Your task to perform on an android device: open app "Truecaller" Image 0: 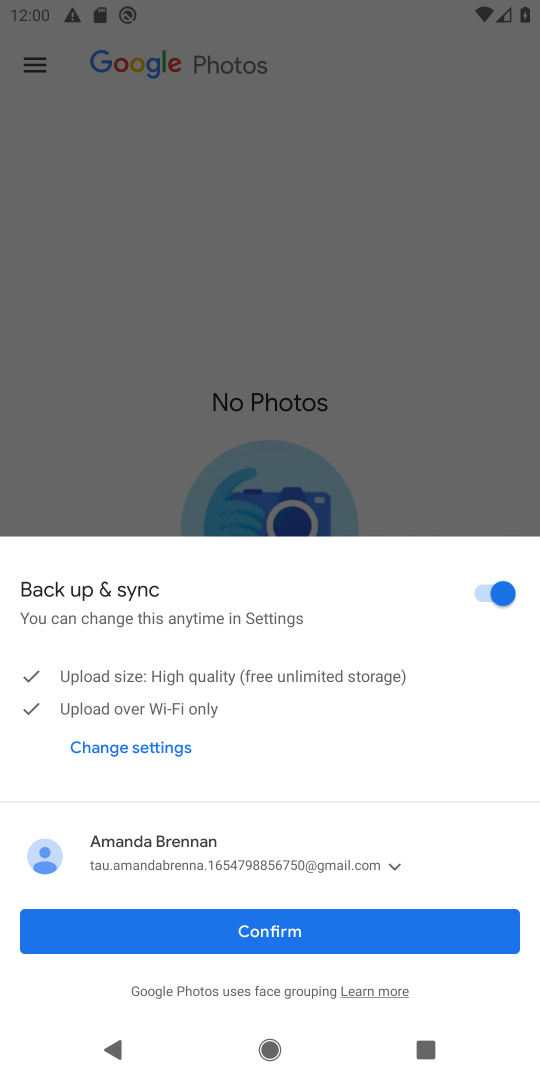
Step 0: press home button
Your task to perform on an android device: open app "Truecaller" Image 1: 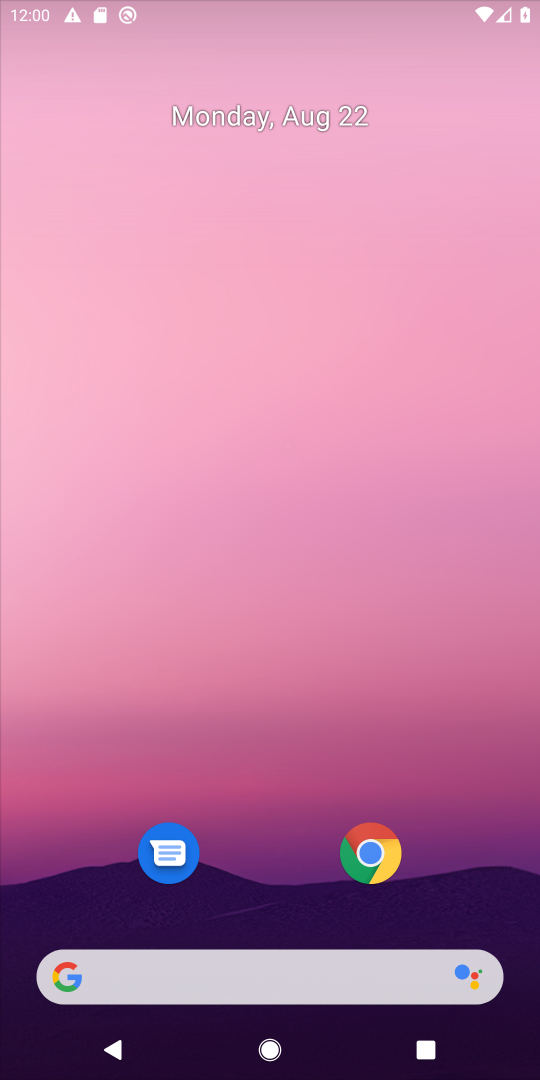
Step 1: drag from (256, 889) to (357, 163)
Your task to perform on an android device: open app "Truecaller" Image 2: 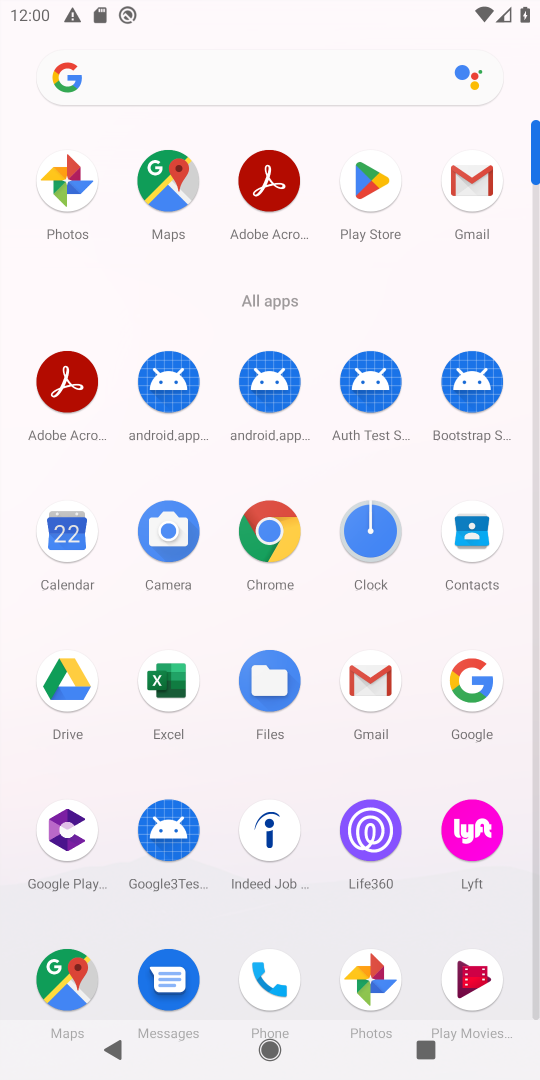
Step 2: click (364, 178)
Your task to perform on an android device: open app "Truecaller" Image 3: 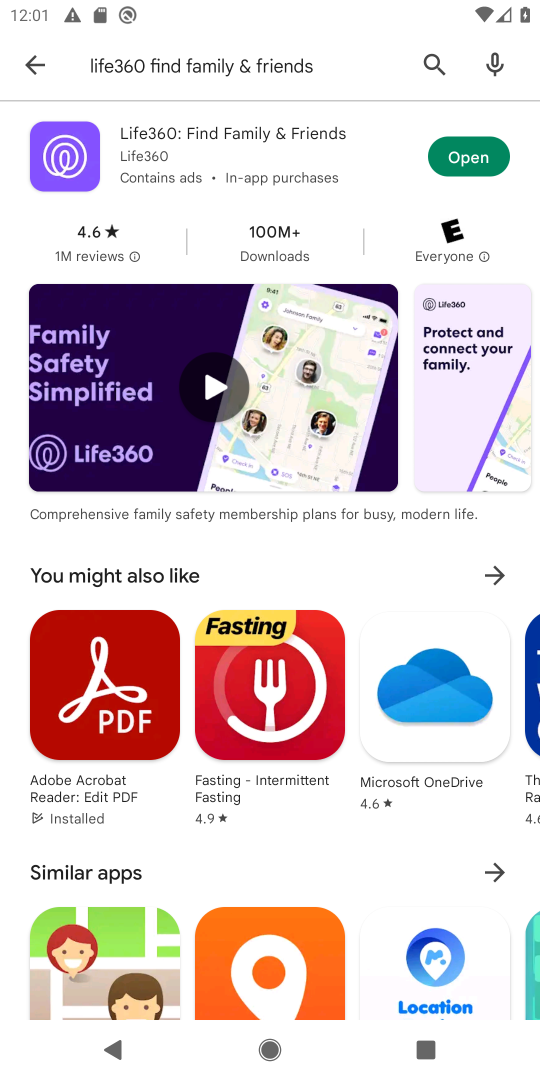
Step 3: click (50, 52)
Your task to perform on an android device: open app "Truecaller" Image 4: 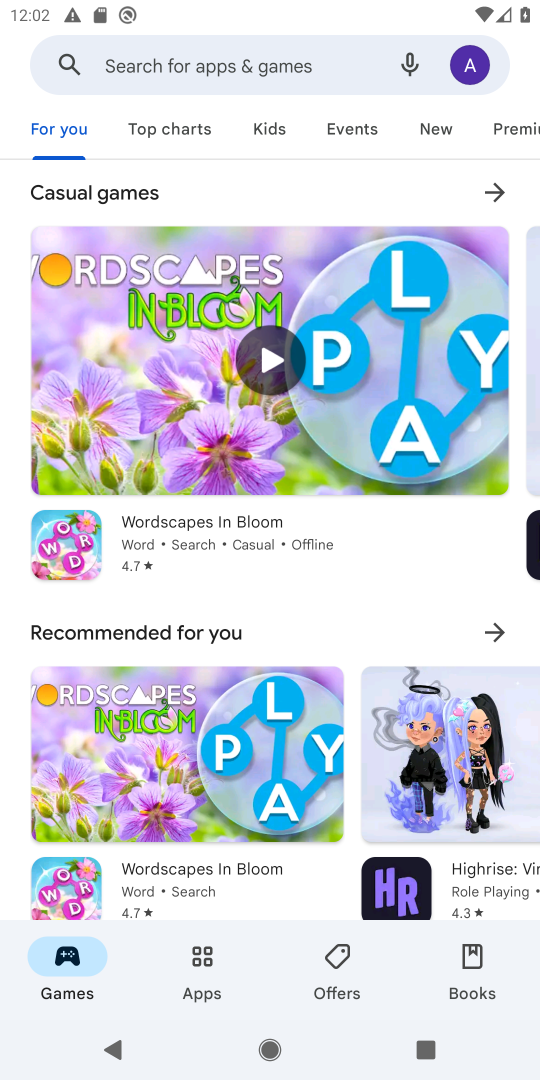
Step 4: click (317, 48)
Your task to perform on an android device: open app "Truecaller" Image 5: 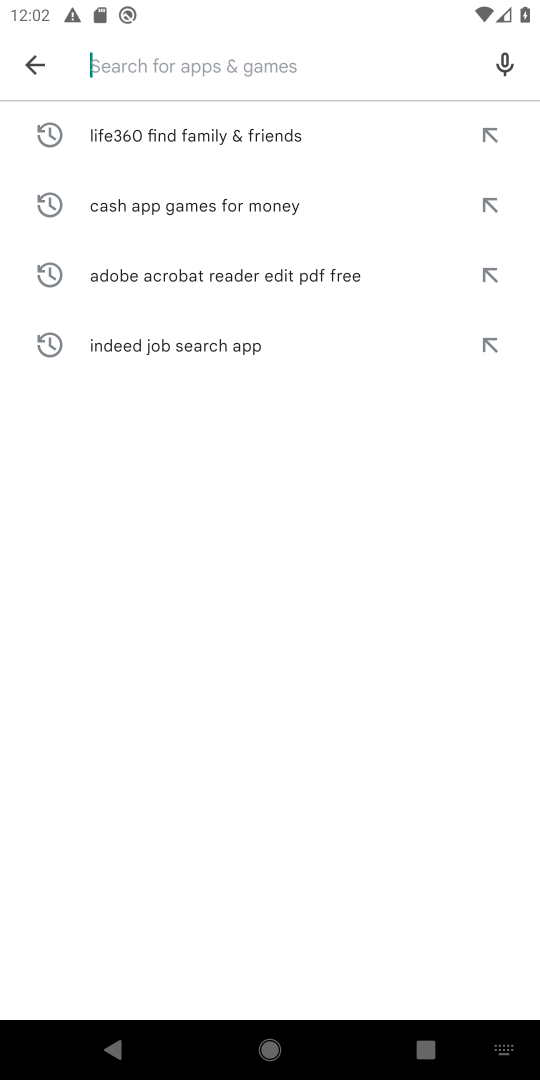
Step 5: type "Truecaller "
Your task to perform on an android device: open app "Truecaller" Image 6: 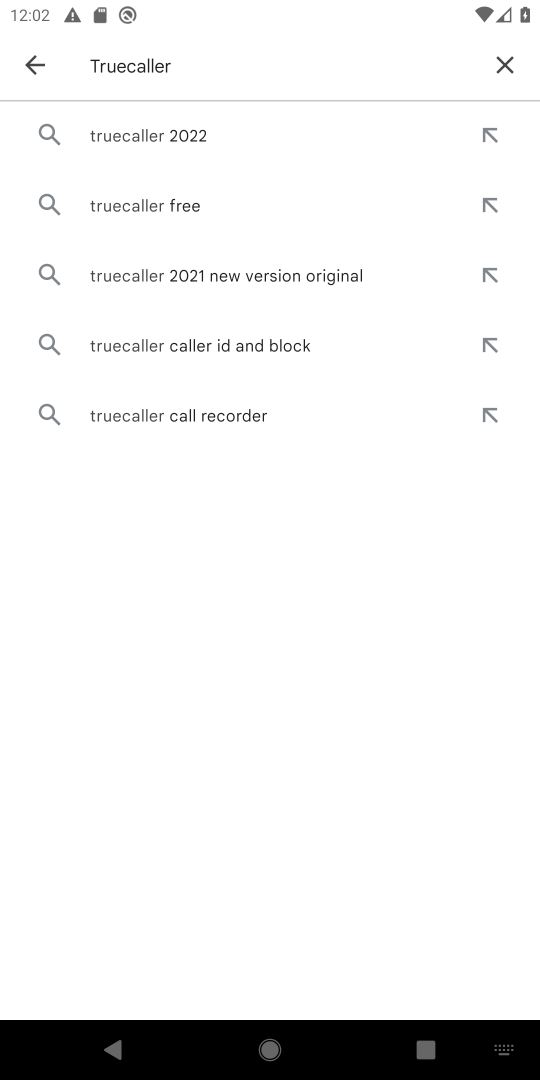
Step 6: click (176, 203)
Your task to perform on an android device: open app "Truecaller" Image 7: 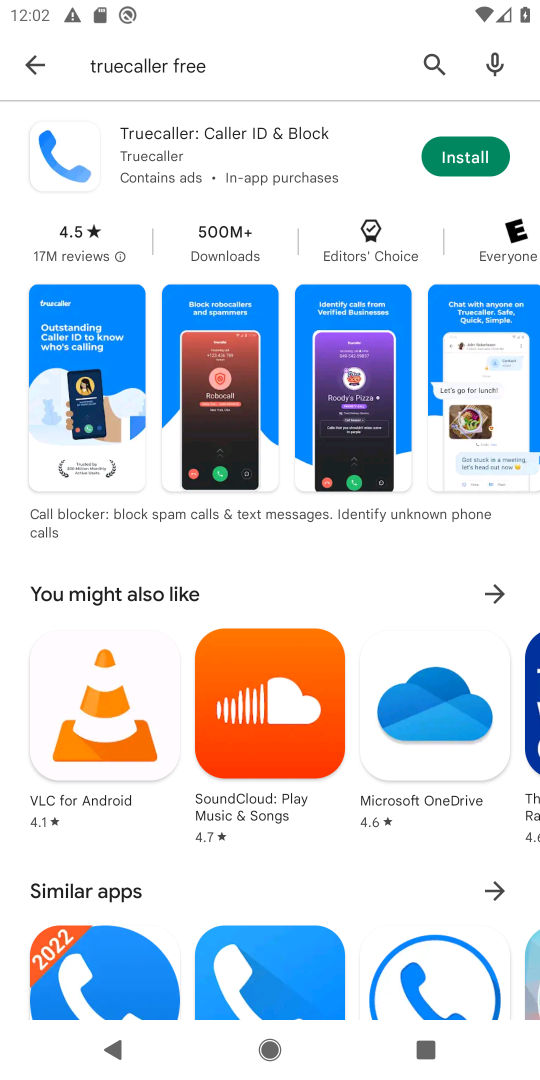
Step 7: click (478, 150)
Your task to perform on an android device: open app "Truecaller" Image 8: 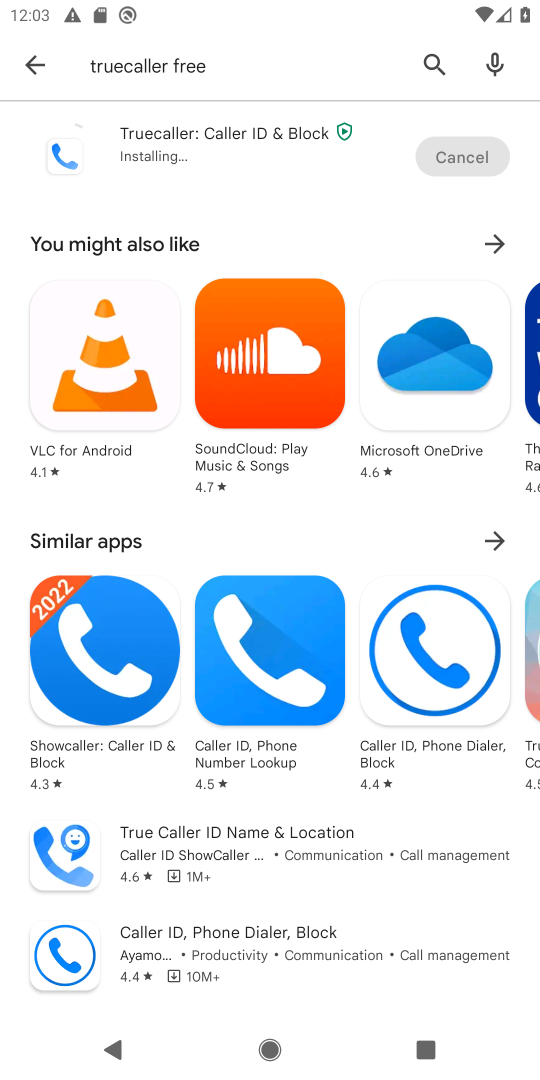
Step 8: task complete